Your task to perform on an android device: Open settings Image 0: 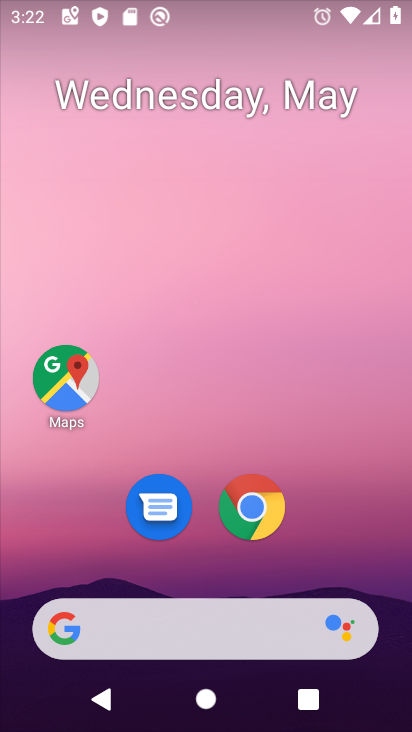
Step 0: drag from (347, 467) to (345, 104)
Your task to perform on an android device: Open settings Image 1: 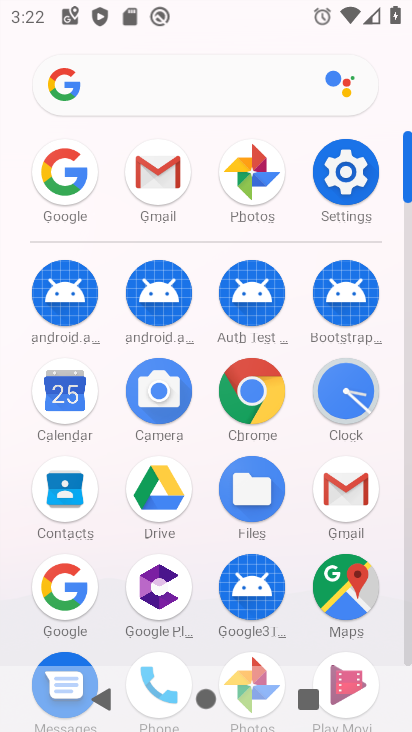
Step 1: click (345, 168)
Your task to perform on an android device: Open settings Image 2: 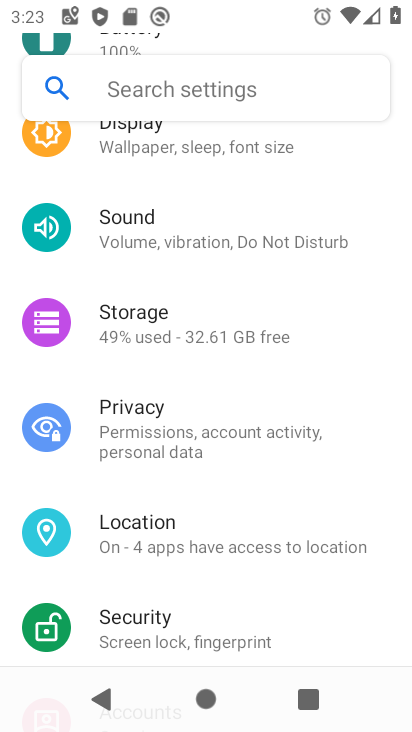
Step 2: task complete